Your task to perform on an android device: Is it going to rain tomorrow? Image 0: 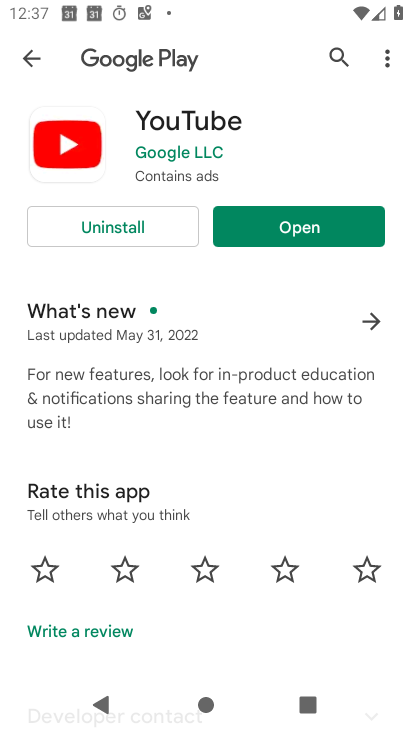
Step 0: press home button
Your task to perform on an android device: Is it going to rain tomorrow? Image 1: 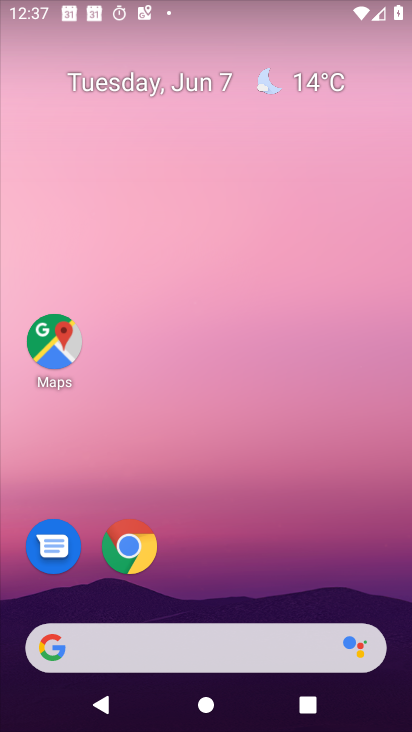
Step 1: click (281, 77)
Your task to perform on an android device: Is it going to rain tomorrow? Image 2: 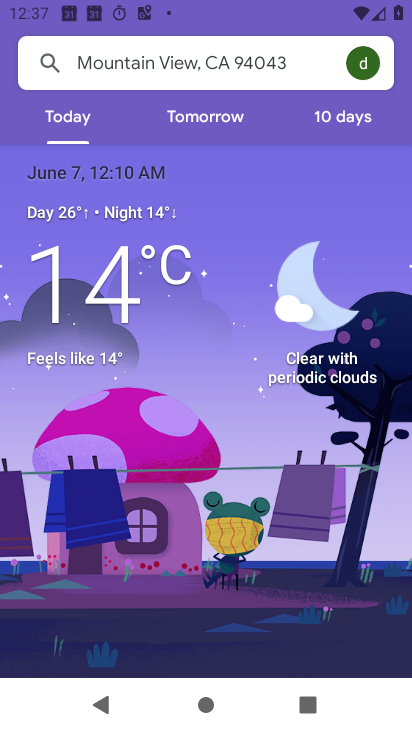
Step 2: click (208, 115)
Your task to perform on an android device: Is it going to rain tomorrow? Image 3: 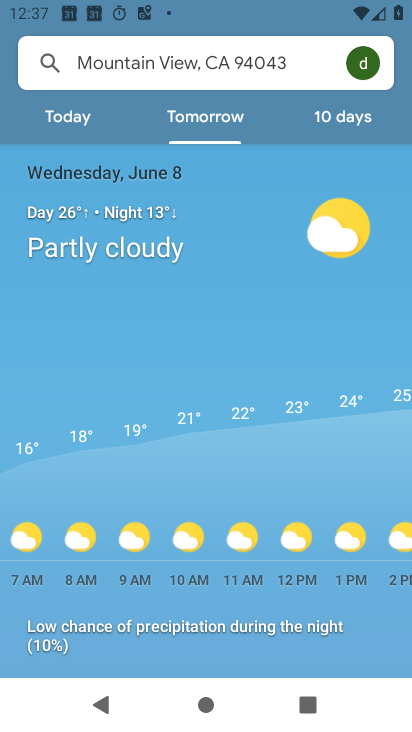
Step 3: task complete